Your task to perform on an android device: Open calendar and show me the third week of next month Image 0: 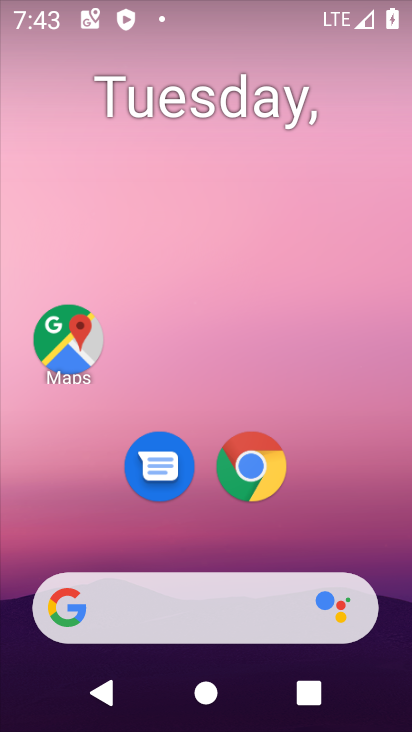
Step 0: drag from (377, 537) to (361, 74)
Your task to perform on an android device: Open calendar and show me the third week of next month Image 1: 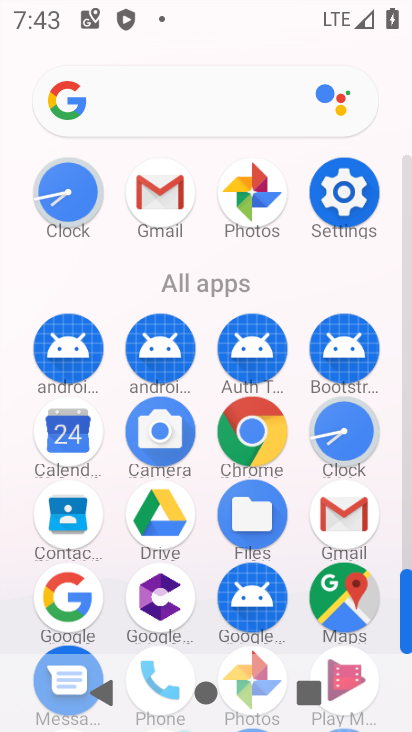
Step 1: task complete